Your task to perform on an android device: Open Yahoo.com Image 0: 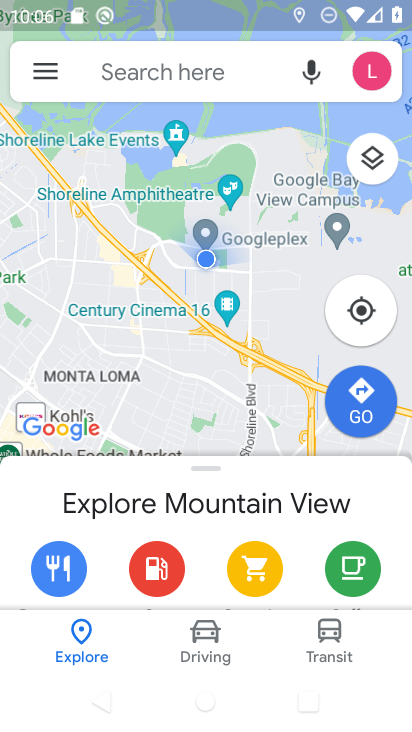
Step 0: press home button
Your task to perform on an android device: Open Yahoo.com Image 1: 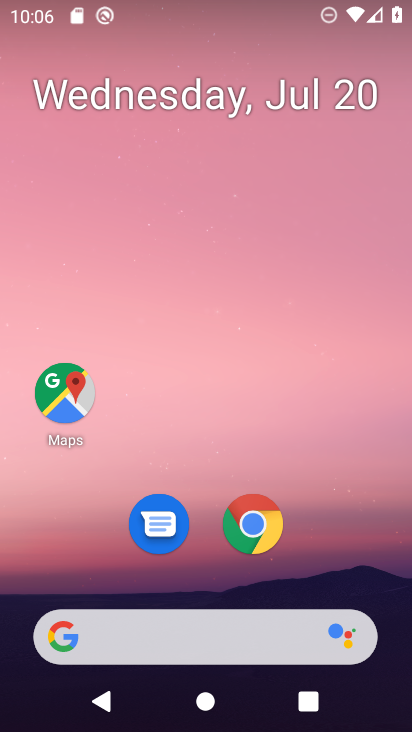
Step 1: drag from (217, 640) to (266, 151)
Your task to perform on an android device: Open Yahoo.com Image 2: 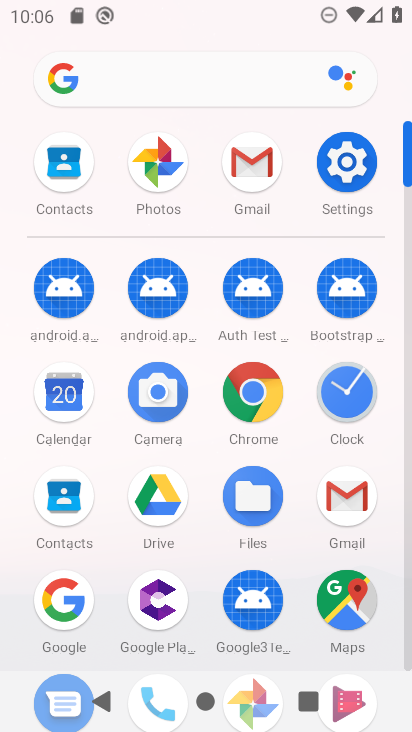
Step 2: click (255, 384)
Your task to perform on an android device: Open Yahoo.com Image 3: 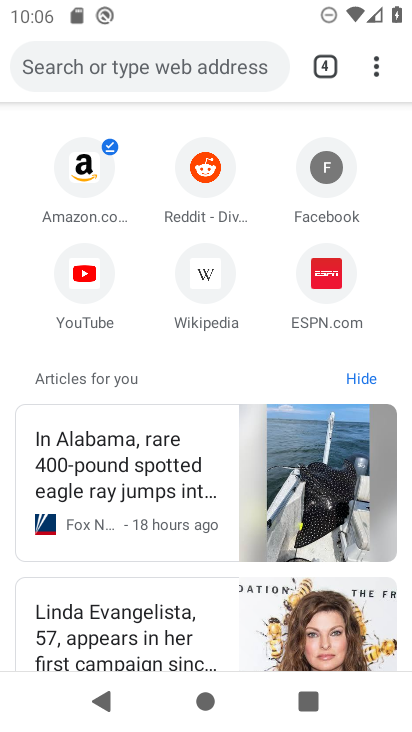
Step 3: click (140, 63)
Your task to perform on an android device: Open Yahoo.com Image 4: 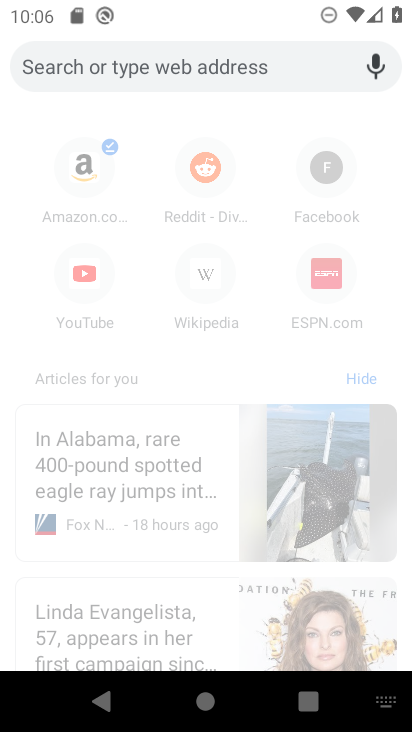
Step 4: type "yahoo.com"
Your task to perform on an android device: Open Yahoo.com Image 5: 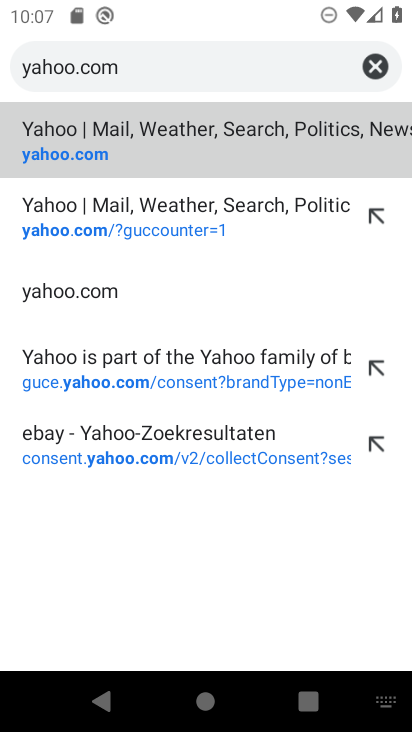
Step 5: click (176, 154)
Your task to perform on an android device: Open Yahoo.com Image 6: 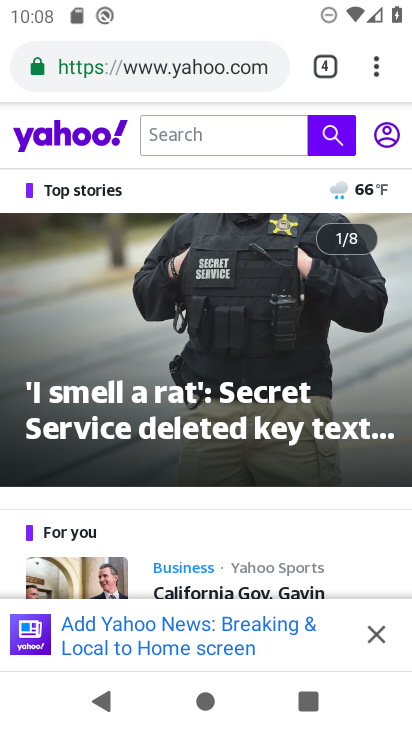
Step 6: task complete